Your task to perform on an android device: Search for the best fantasy books on Goodreads. Image 0: 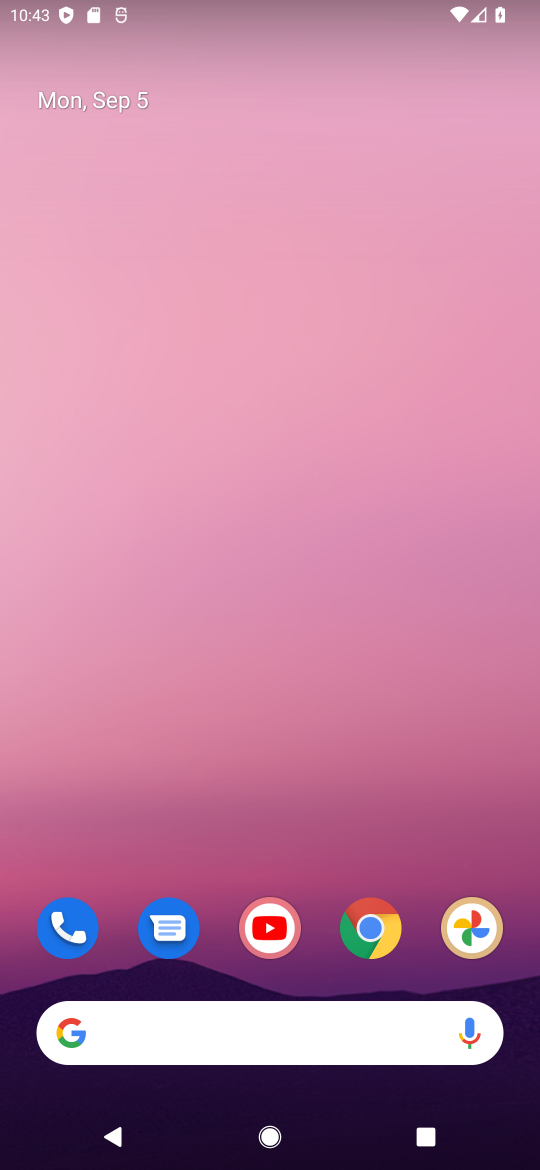
Step 0: drag from (309, 980) to (161, 48)
Your task to perform on an android device: Search for the best fantasy books on Goodreads. Image 1: 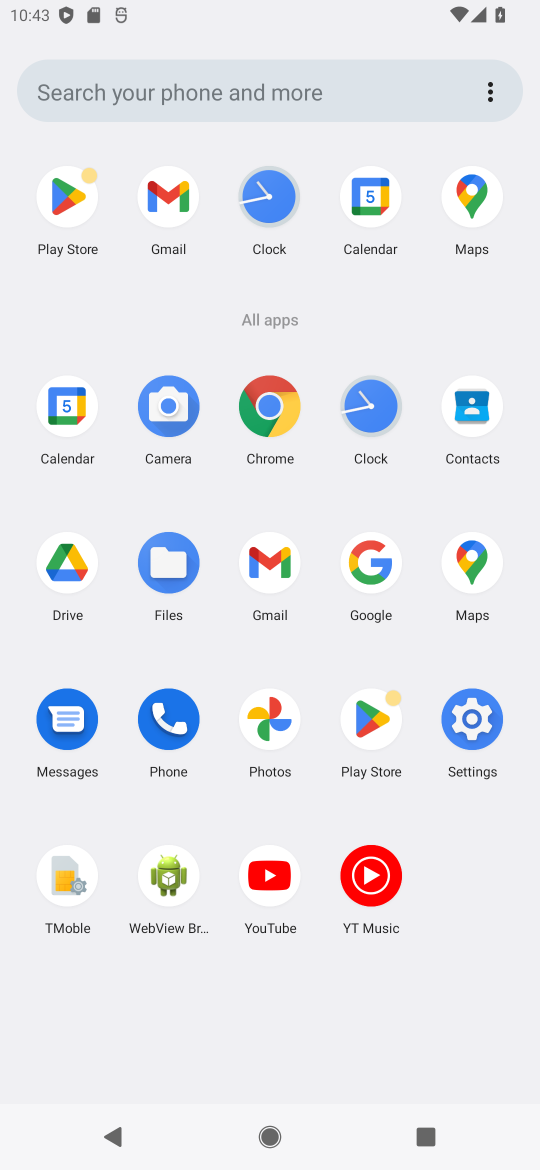
Step 1: click (270, 411)
Your task to perform on an android device: Search for the best fantasy books on Goodreads. Image 2: 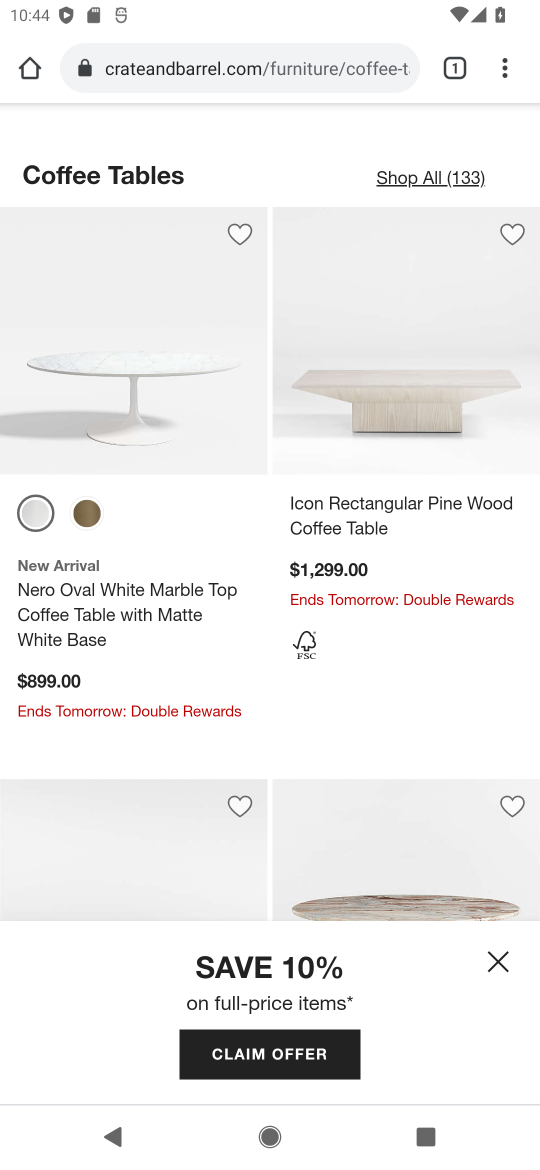
Step 2: click (254, 77)
Your task to perform on an android device: Search for the best fantasy books on Goodreads. Image 3: 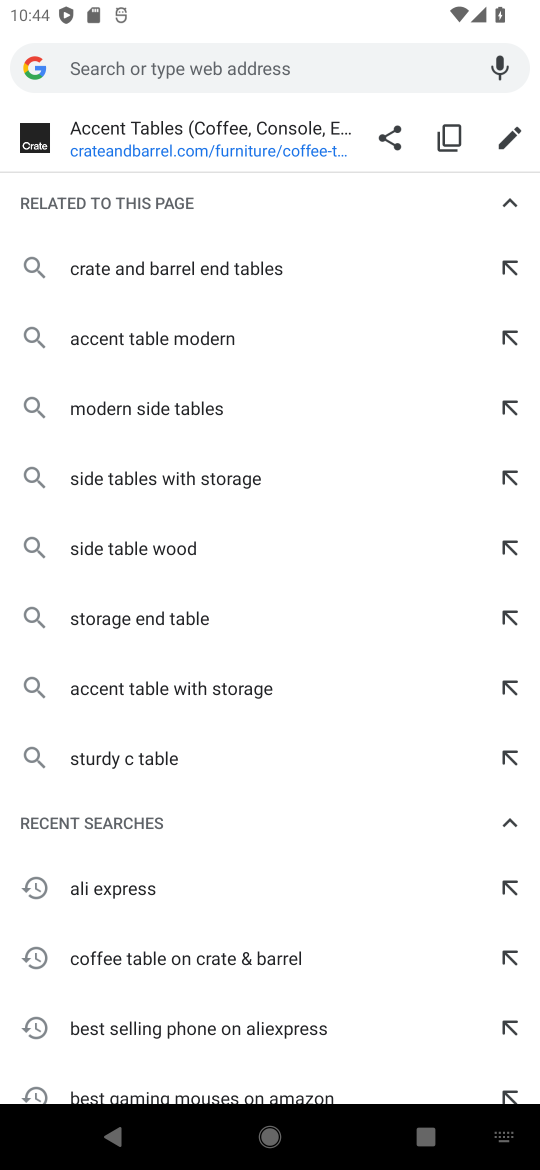
Step 3: type "best fantasy books on Goodreads"
Your task to perform on an android device: Search for the best fantasy books on Goodreads. Image 4: 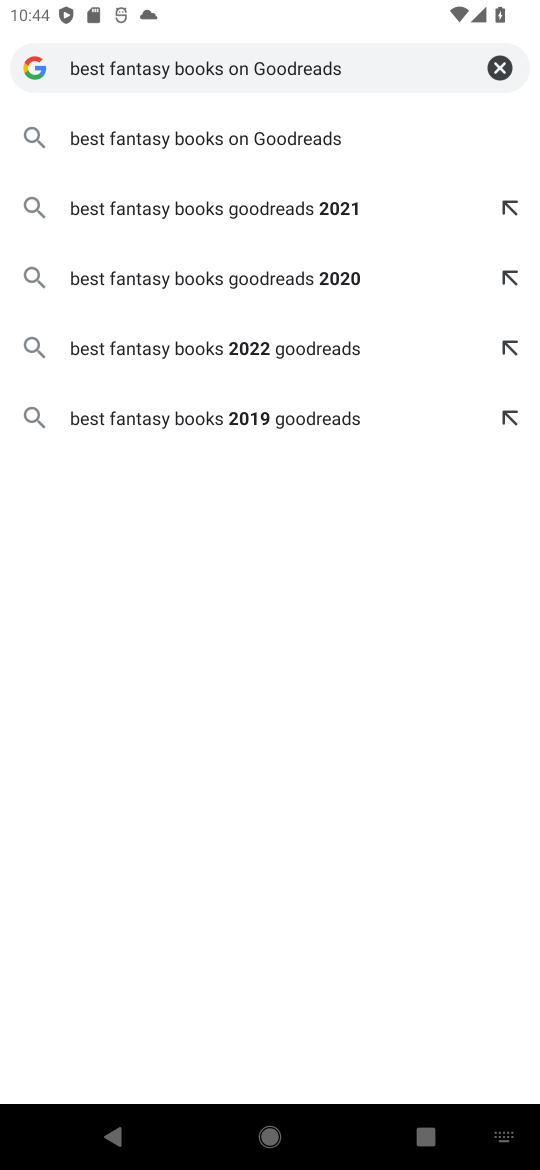
Step 4: press enter
Your task to perform on an android device: Search for the best fantasy books on Goodreads. Image 5: 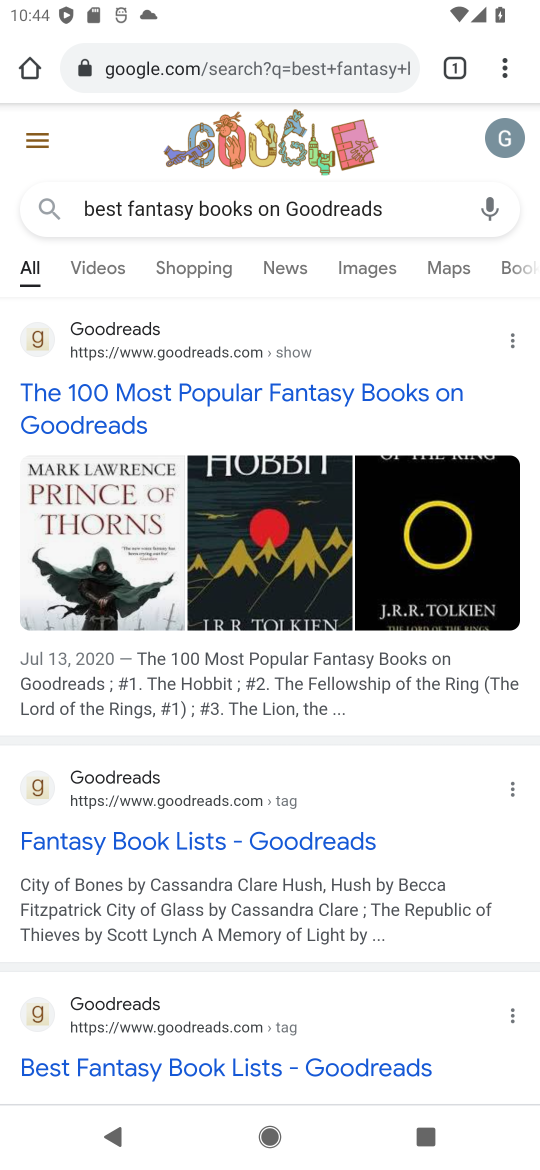
Step 5: click (256, 395)
Your task to perform on an android device: Search for the best fantasy books on Goodreads. Image 6: 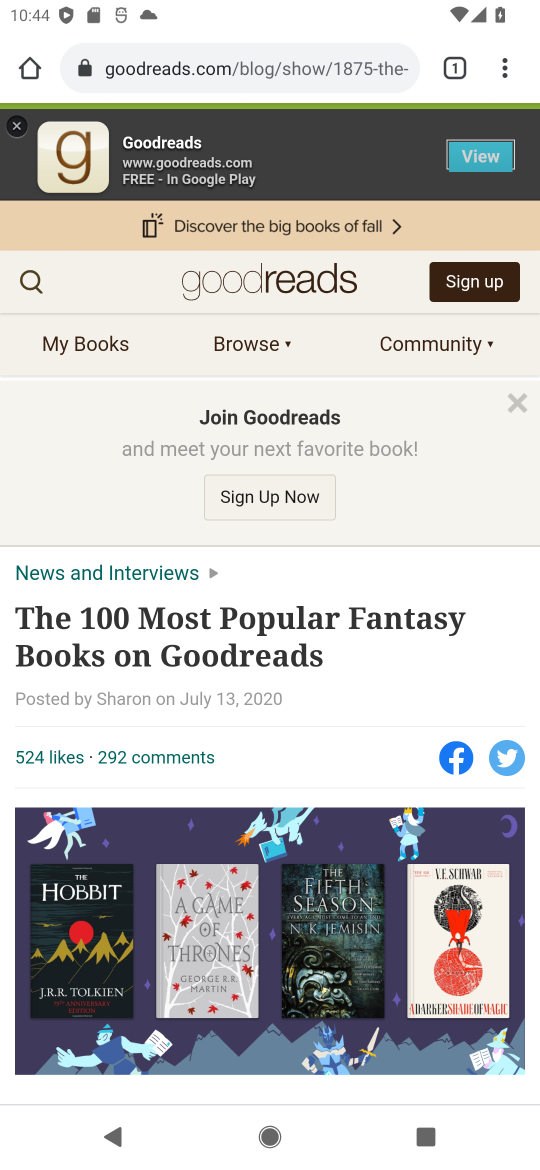
Step 6: task complete